Your task to perform on an android device: check google app version Image 0: 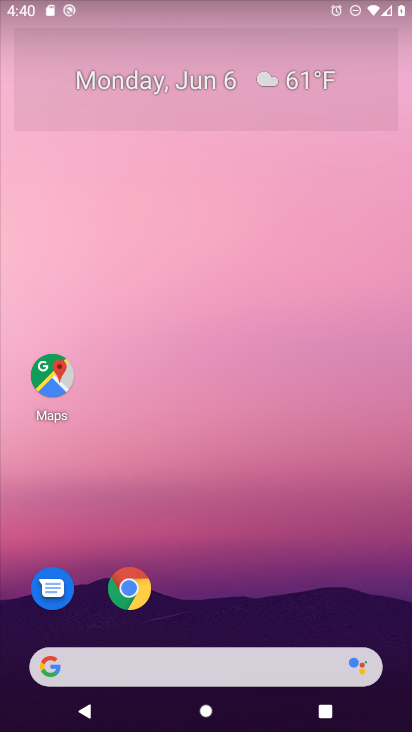
Step 0: click (142, 600)
Your task to perform on an android device: check google app version Image 1: 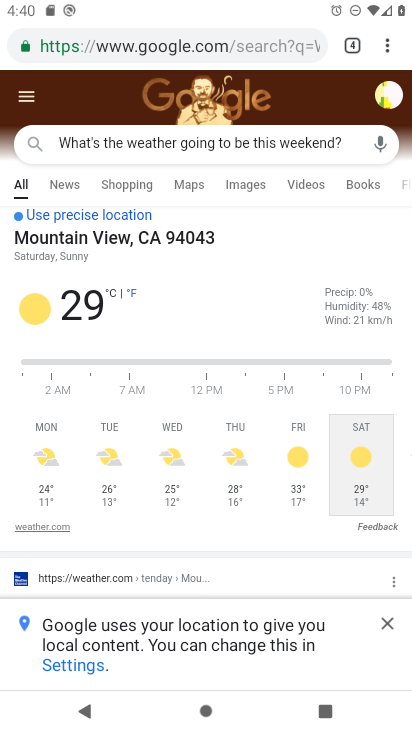
Step 1: click (390, 50)
Your task to perform on an android device: check google app version Image 2: 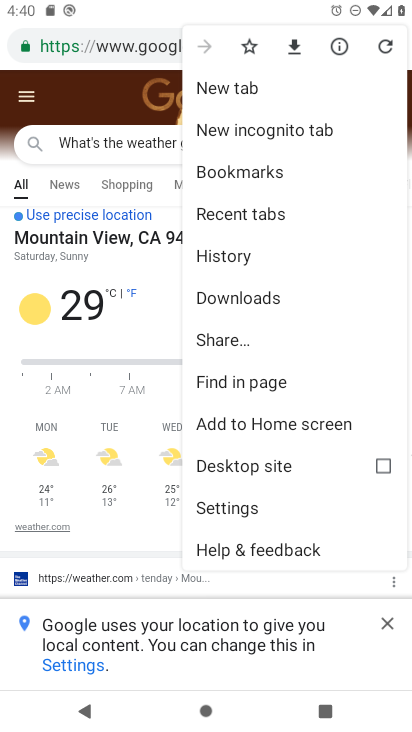
Step 2: click (295, 537)
Your task to perform on an android device: check google app version Image 3: 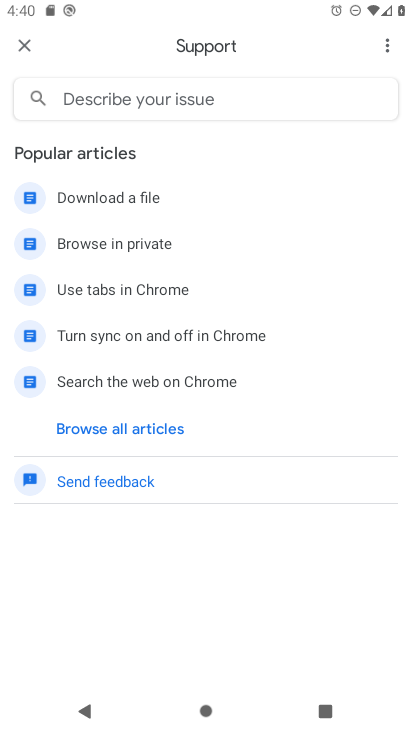
Step 3: click (380, 54)
Your task to perform on an android device: check google app version Image 4: 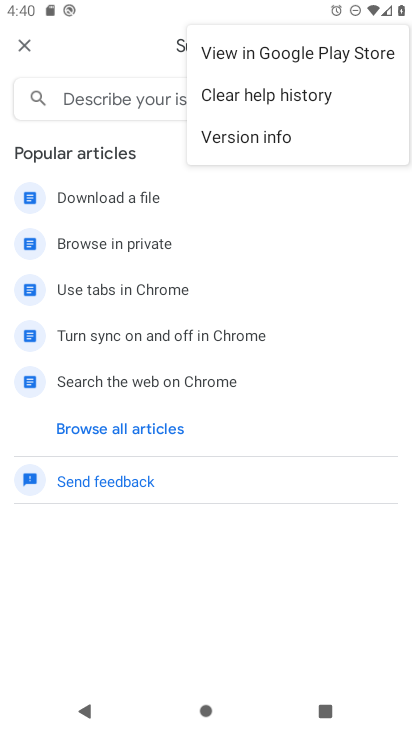
Step 4: click (290, 137)
Your task to perform on an android device: check google app version Image 5: 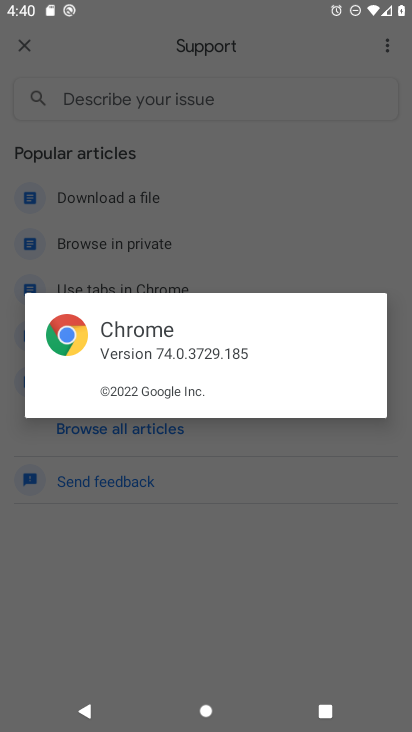
Step 5: task complete